Your task to perform on an android device: See recent photos Image 0: 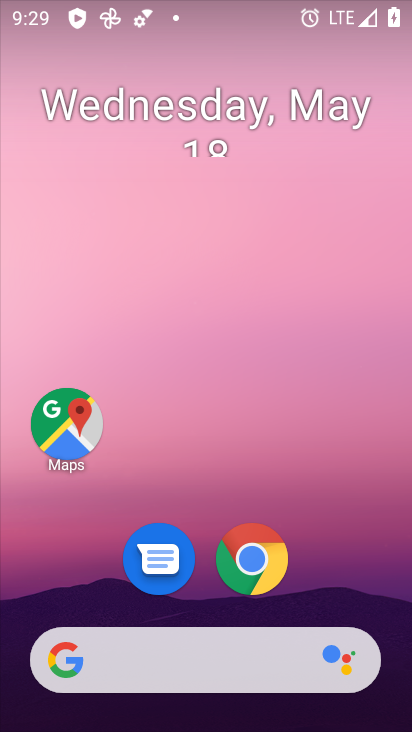
Step 0: drag from (367, 564) to (265, 15)
Your task to perform on an android device: See recent photos Image 1: 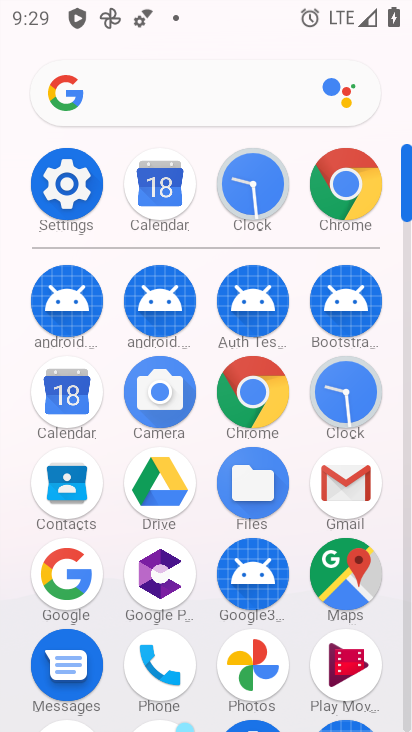
Step 1: drag from (14, 590) to (21, 288)
Your task to perform on an android device: See recent photos Image 2: 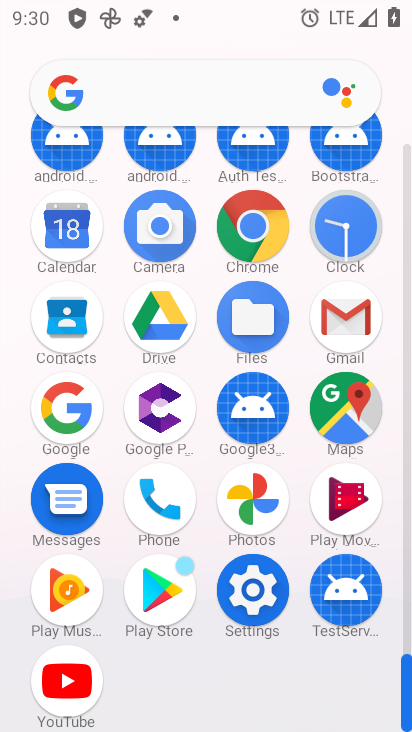
Step 2: drag from (31, 560) to (31, 271)
Your task to perform on an android device: See recent photos Image 3: 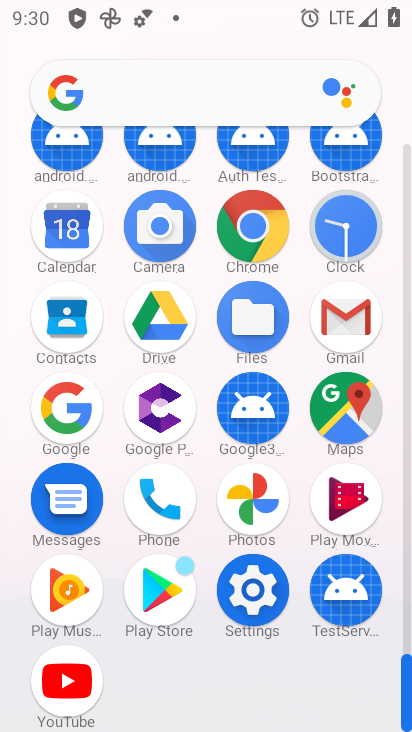
Step 3: click (249, 491)
Your task to perform on an android device: See recent photos Image 4: 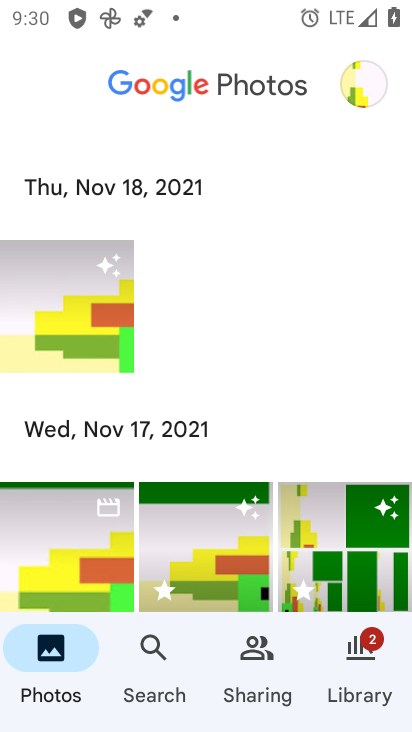
Step 4: task complete